Your task to perform on an android device: turn notification dots on Image 0: 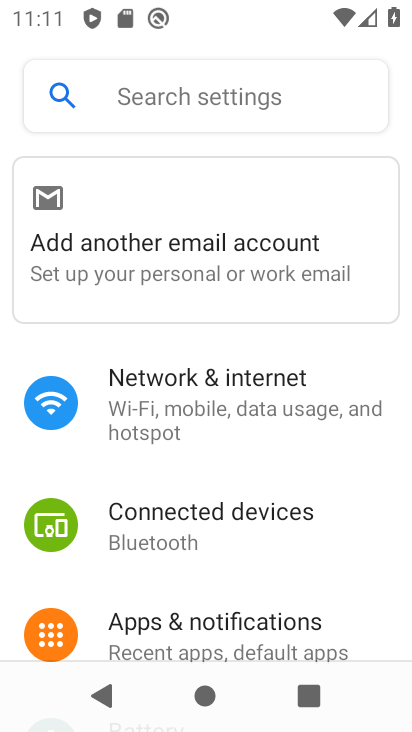
Step 0: drag from (291, 523) to (272, 125)
Your task to perform on an android device: turn notification dots on Image 1: 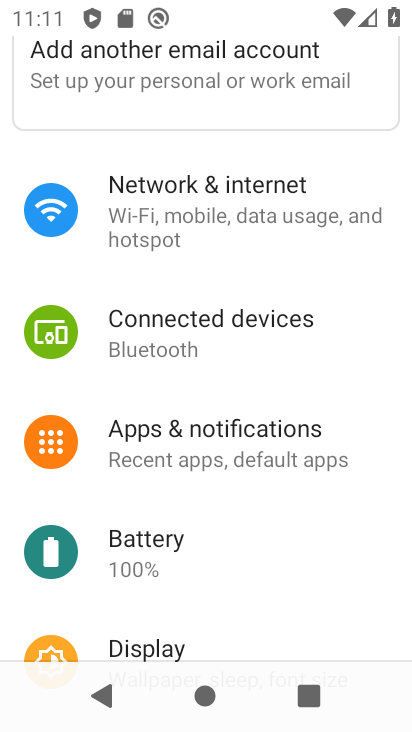
Step 1: click (235, 452)
Your task to perform on an android device: turn notification dots on Image 2: 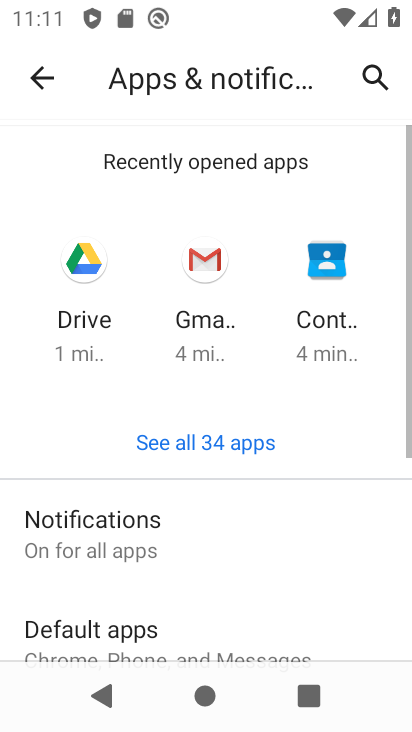
Step 2: click (186, 555)
Your task to perform on an android device: turn notification dots on Image 3: 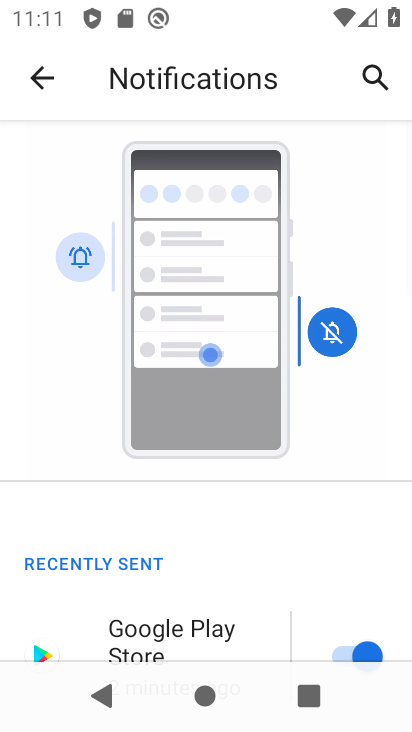
Step 3: drag from (246, 593) to (237, 116)
Your task to perform on an android device: turn notification dots on Image 4: 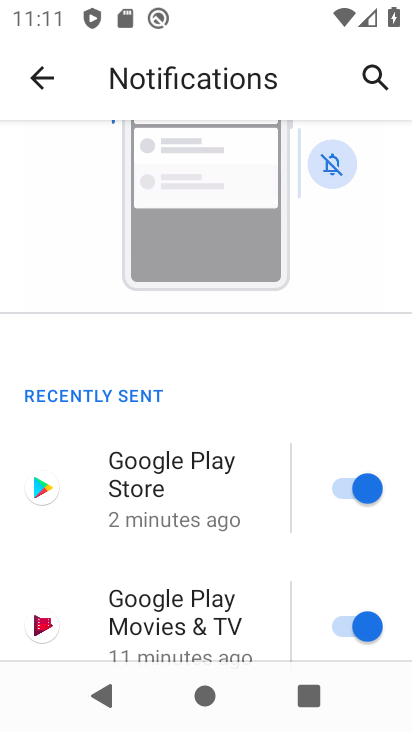
Step 4: drag from (210, 513) to (211, 145)
Your task to perform on an android device: turn notification dots on Image 5: 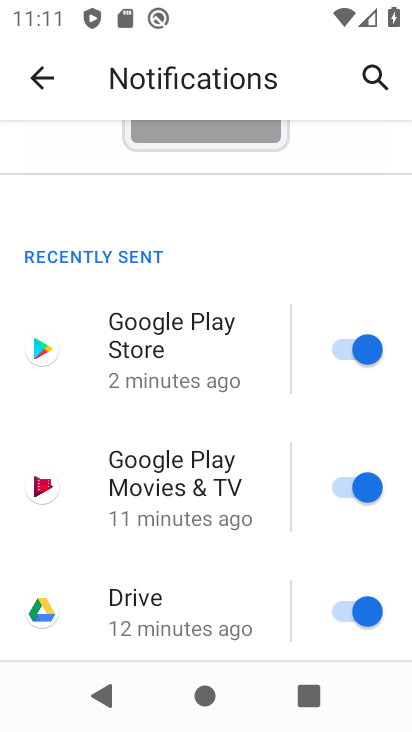
Step 5: drag from (213, 619) to (212, 176)
Your task to perform on an android device: turn notification dots on Image 6: 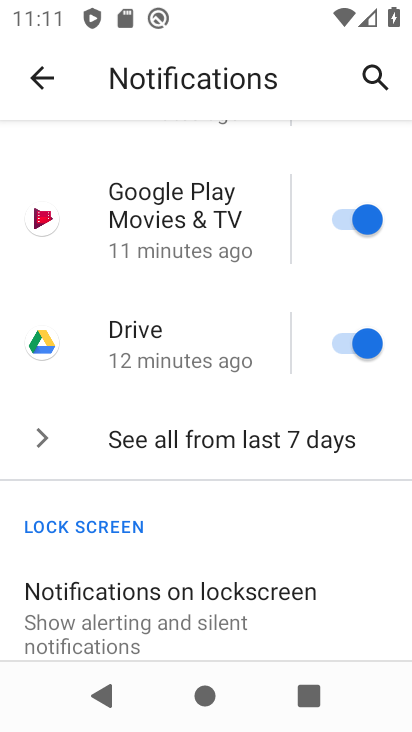
Step 6: drag from (224, 536) to (216, 133)
Your task to perform on an android device: turn notification dots on Image 7: 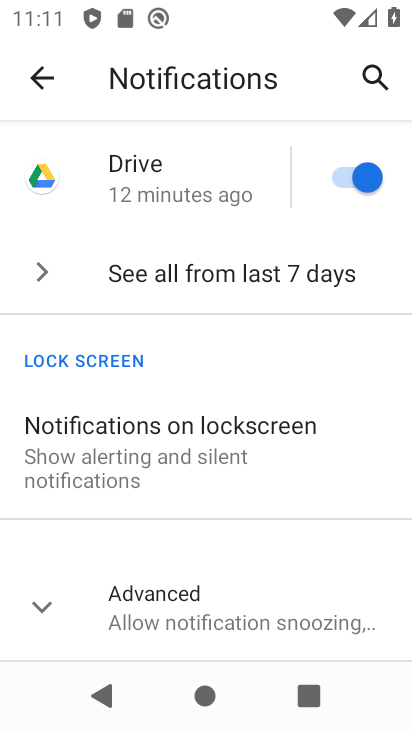
Step 7: click (214, 595)
Your task to perform on an android device: turn notification dots on Image 8: 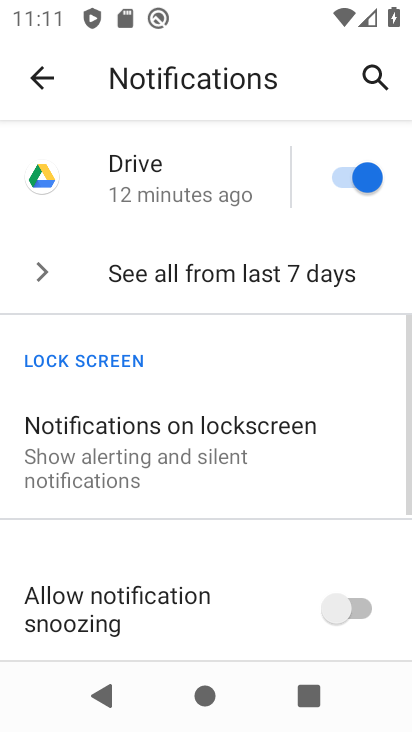
Step 8: drag from (213, 625) to (196, 198)
Your task to perform on an android device: turn notification dots on Image 9: 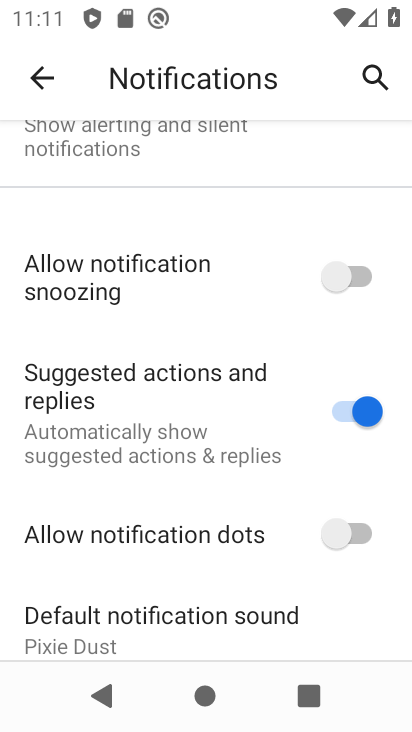
Step 9: click (358, 531)
Your task to perform on an android device: turn notification dots on Image 10: 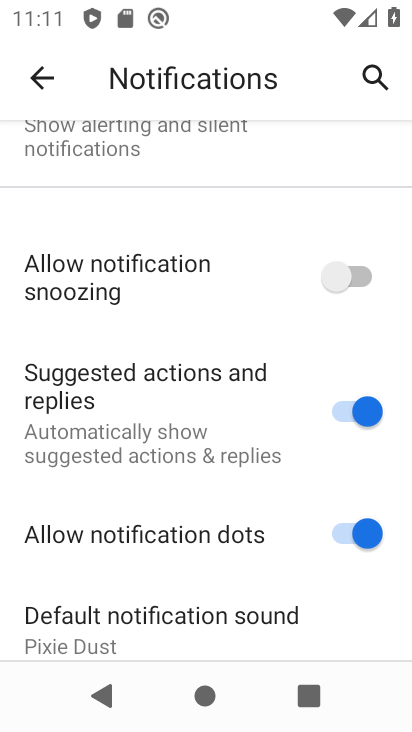
Step 10: task complete